Your task to perform on an android device: Open the stopwatch Image 0: 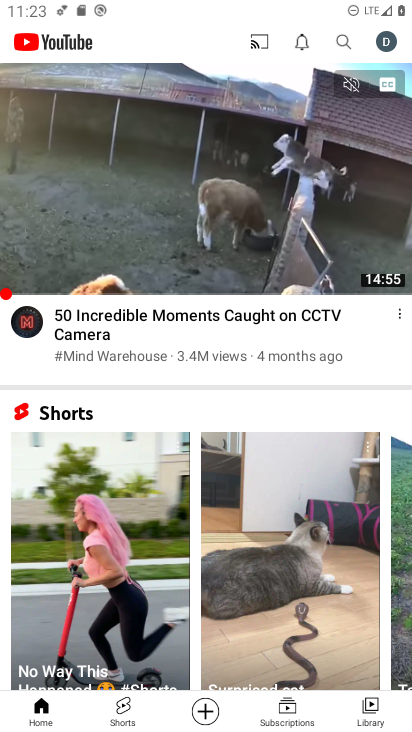
Step 0: press home button
Your task to perform on an android device: Open the stopwatch Image 1: 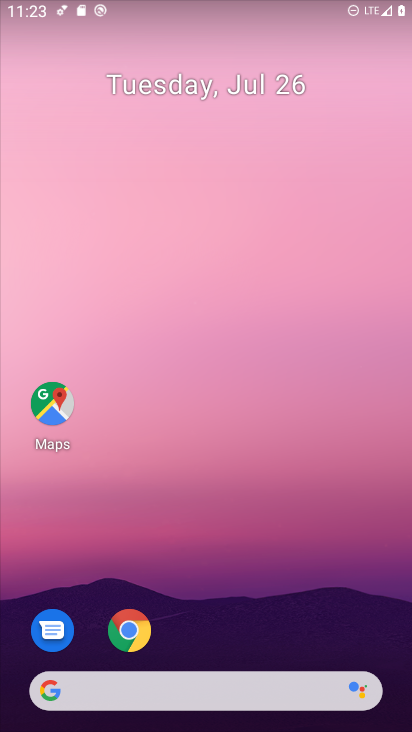
Step 1: drag from (372, 630) to (326, 140)
Your task to perform on an android device: Open the stopwatch Image 2: 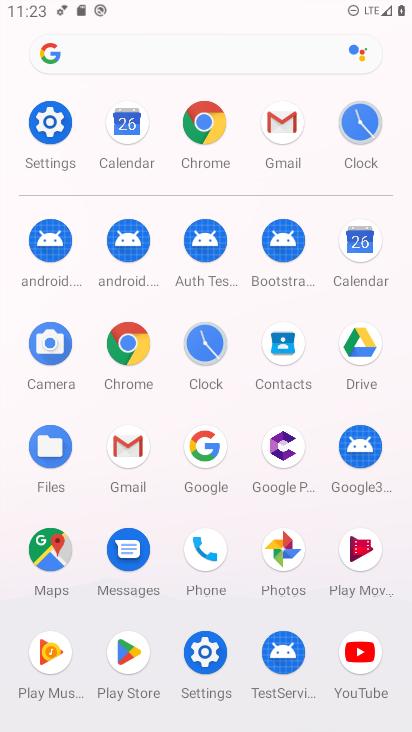
Step 2: click (207, 345)
Your task to perform on an android device: Open the stopwatch Image 3: 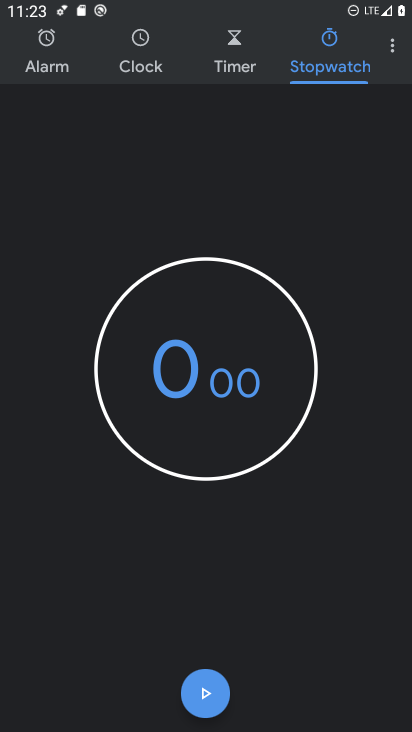
Step 3: task complete